Your task to perform on an android device: turn smart compose on in the gmail app Image 0: 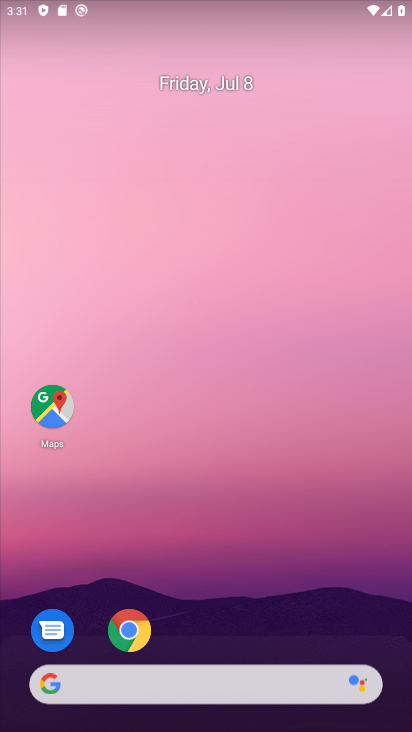
Step 0: drag from (175, 660) to (203, 303)
Your task to perform on an android device: turn smart compose on in the gmail app Image 1: 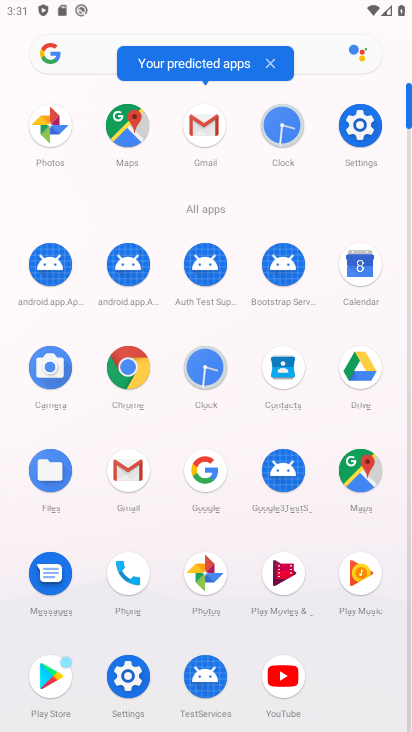
Step 1: click (121, 468)
Your task to perform on an android device: turn smart compose on in the gmail app Image 2: 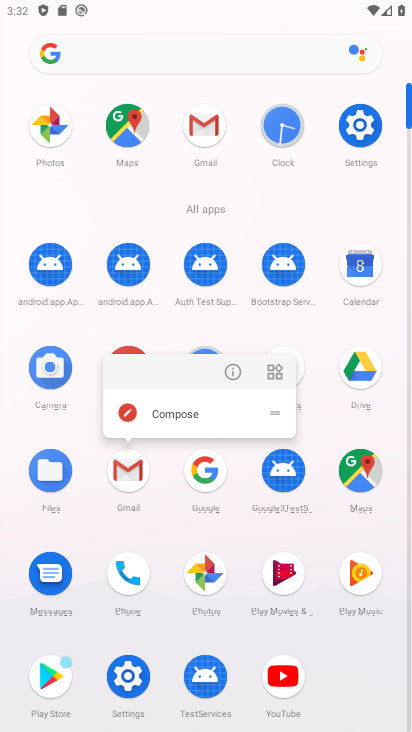
Step 2: click (122, 467)
Your task to perform on an android device: turn smart compose on in the gmail app Image 3: 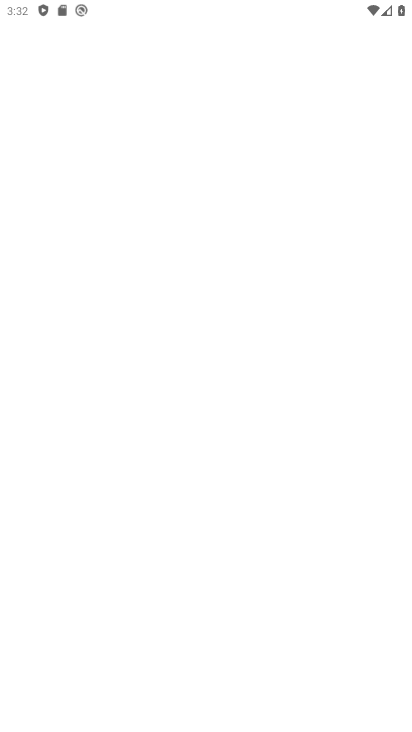
Step 3: click (128, 483)
Your task to perform on an android device: turn smart compose on in the gmail app Image 4: 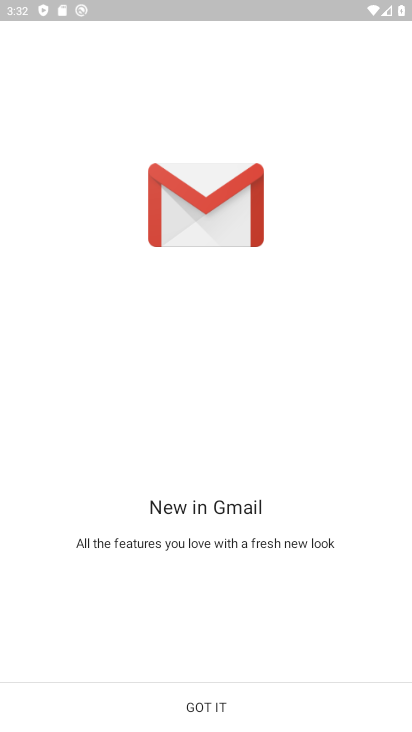
Step 4: click (223, 703)
Your task to perform on an android device: turn smart compose on in the gmail app Image 5: 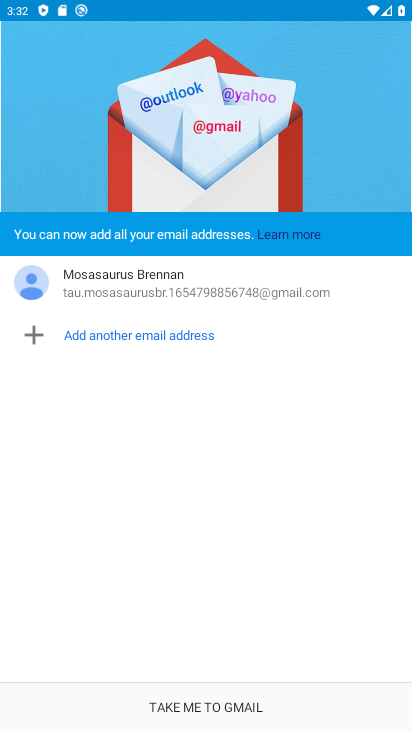
Step 5: click (220, 703)
Your task to perform on an android device: turn smart compose on in the gmail app Image 6: 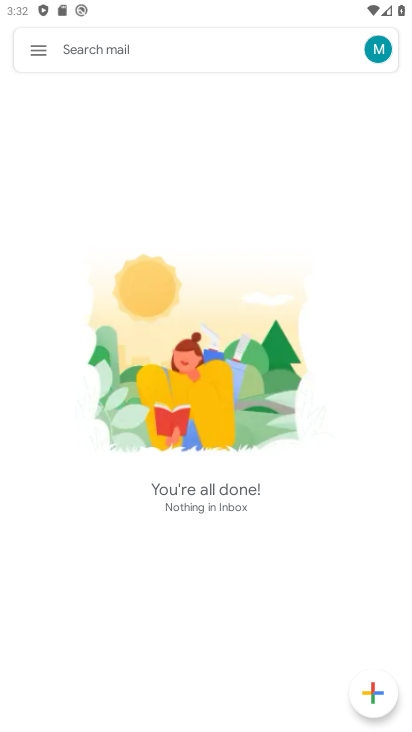
Step 6: click (41, 43)
Your task to perform on an android device: turn smart compose on in the gmail app Image 7: 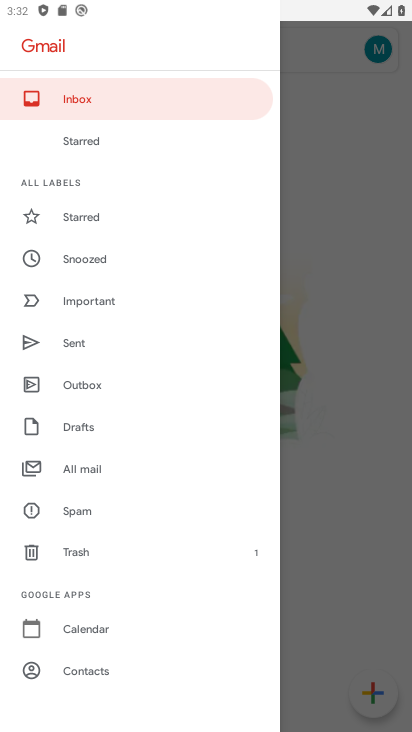
Step 7: drag from (125, 637) to (183, 282)
Your task to perform on an android device: turn smart compose on in the gmail app Image 8: 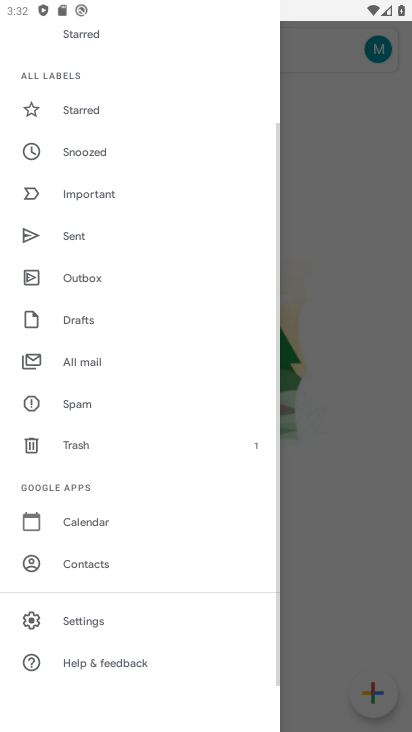
Step 8: click (107, 610)
Your task to perform on an android device: turn smart compose on in the gmail app Image 9: 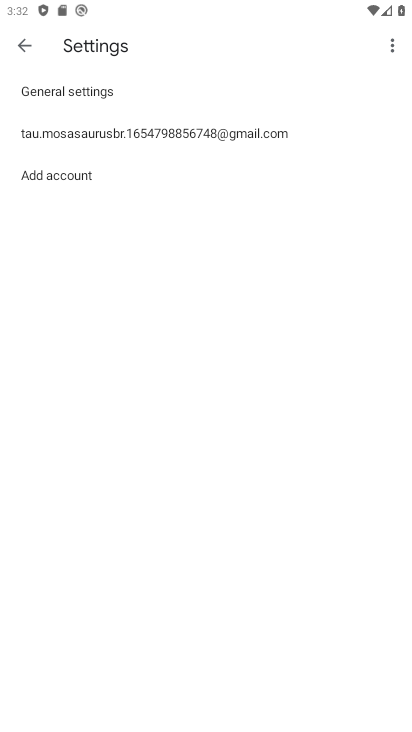
Step 9: click (144, 136)
Your task to perform on an android device: turn smart compose on in the gmail app Image 10: 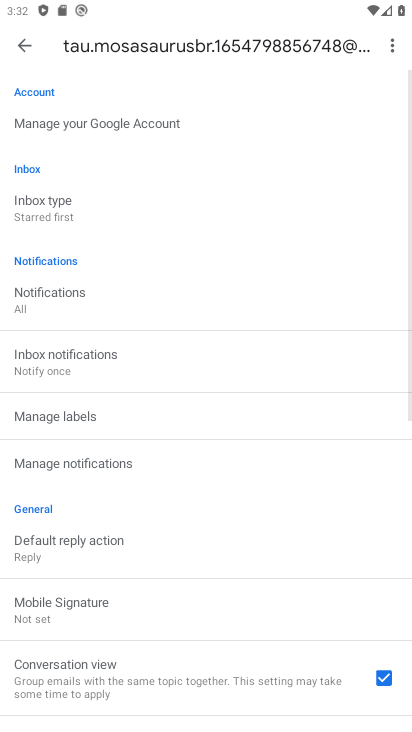
Step 10: task complete